Your task to perform on an android device: toggle location history Image 0: 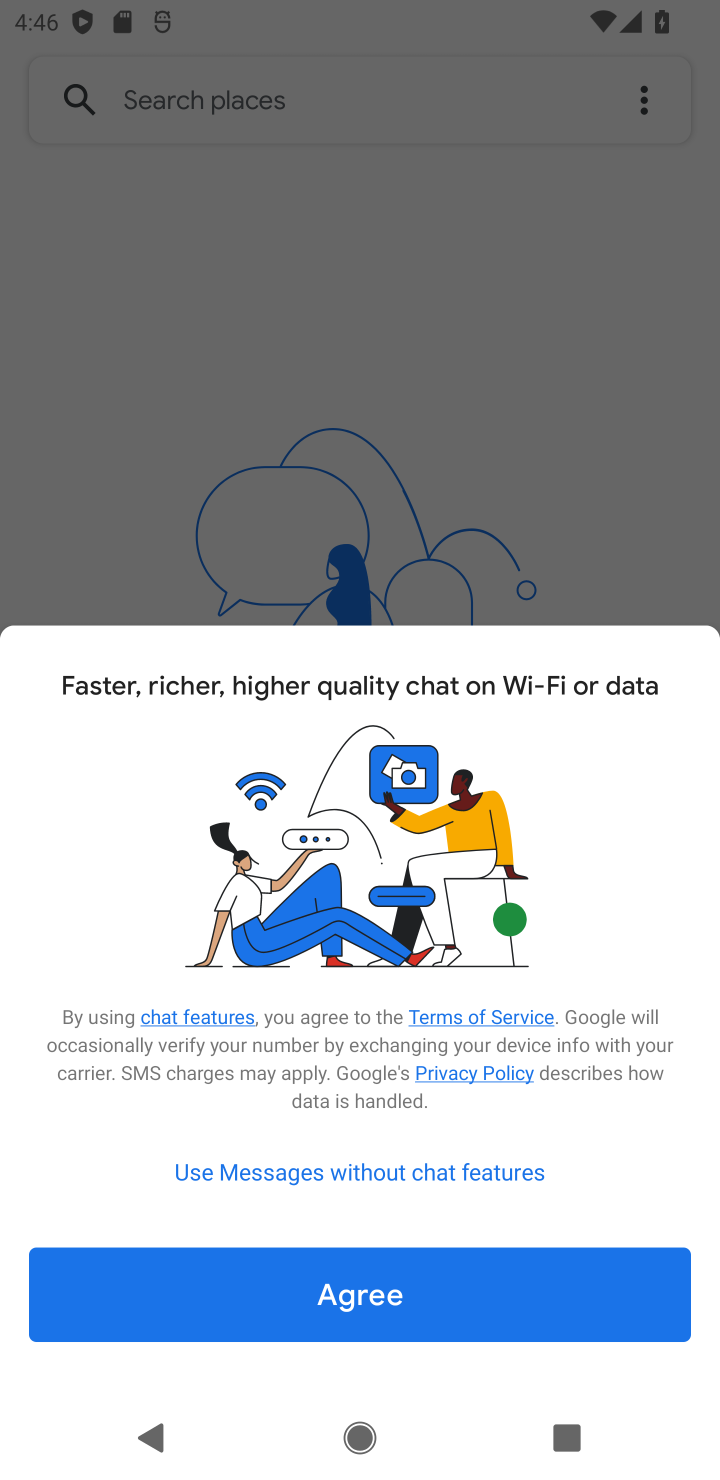
Step 0: press home button
Your task to perform on an android device: toggle location history Image 1: 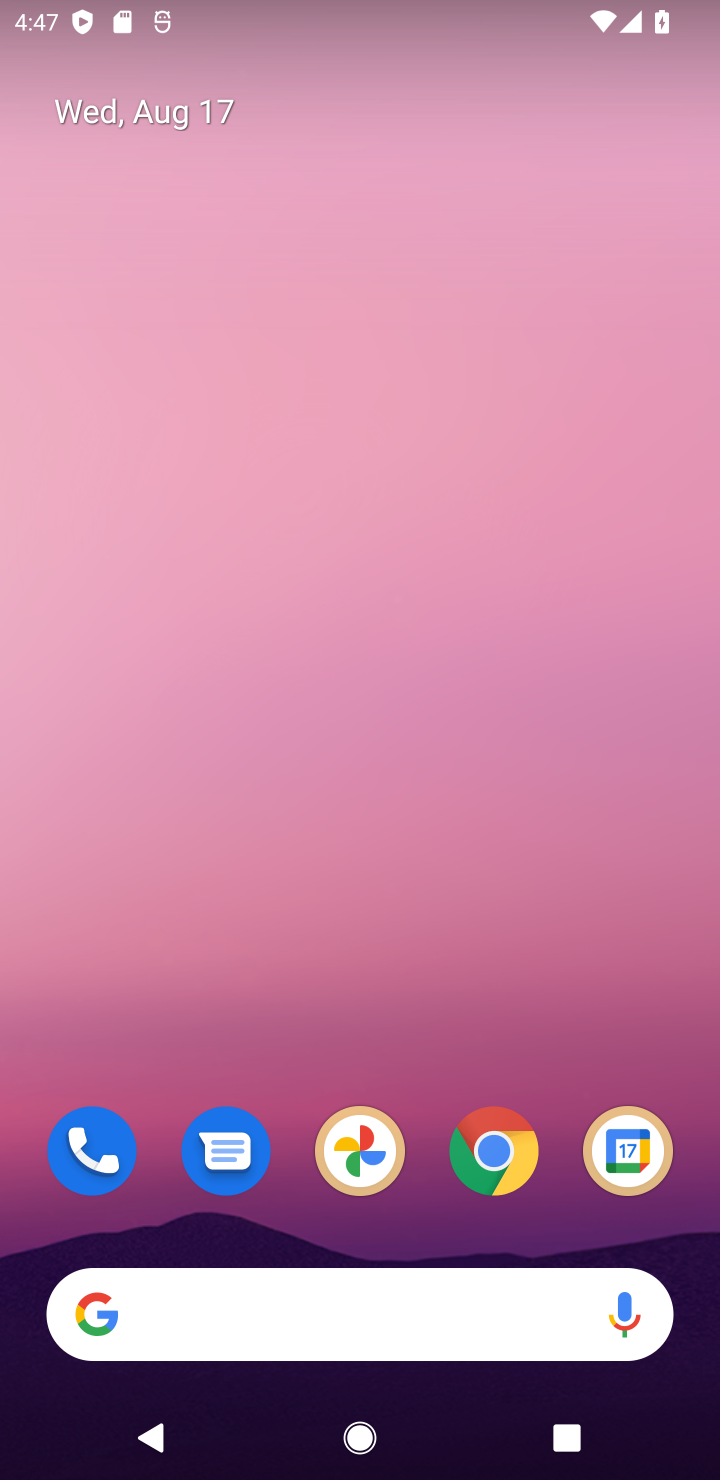
Step 1: drag from (431, 1237) to (452, 57)
Your task to perform on an android device: toggle location history Image 2: 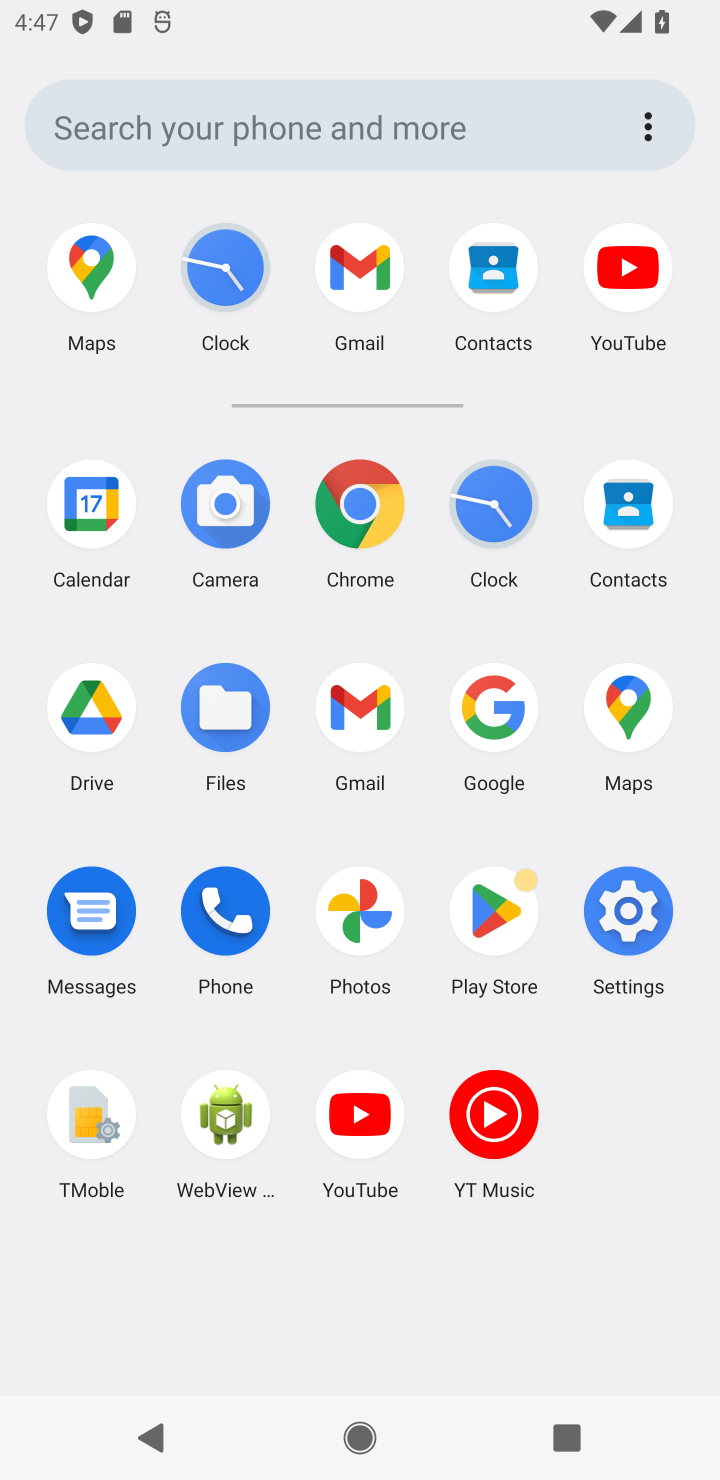
Step 2: click (610, 879)
Your task to perform on an android device: toggle location history Image 3: 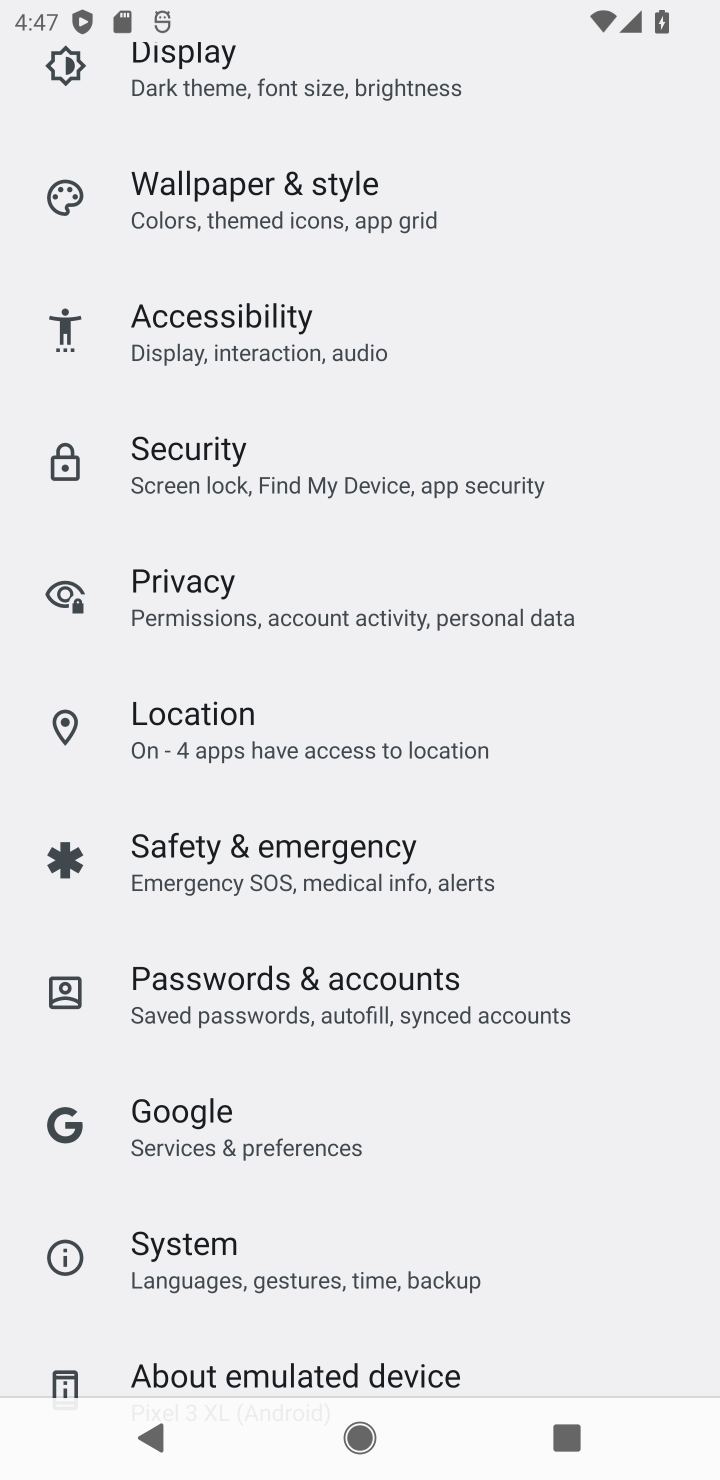
Step 3: click (342, 734)
Your task to perform on an android device: toggle location history Image 4: 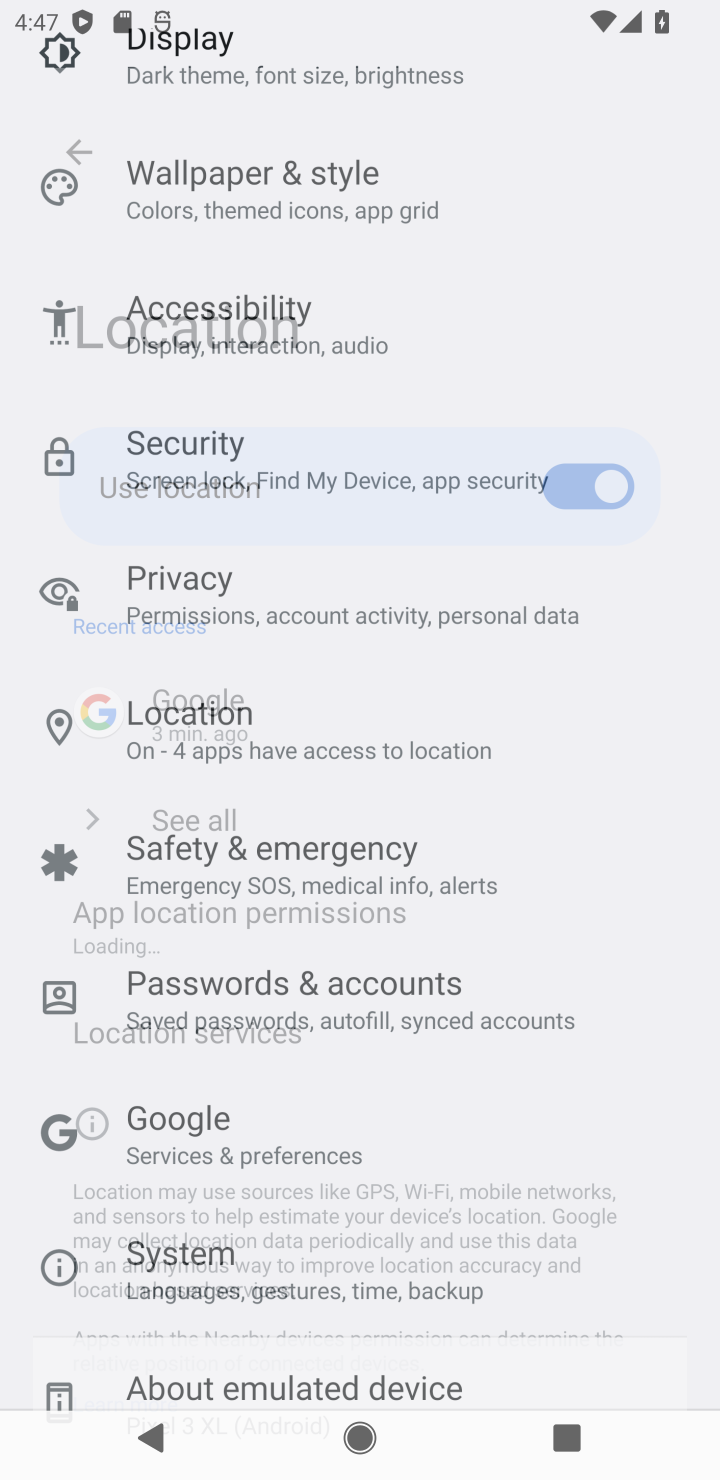
Step 4: task complete